Your task to perform on an android device: turn off wifi Image 0: 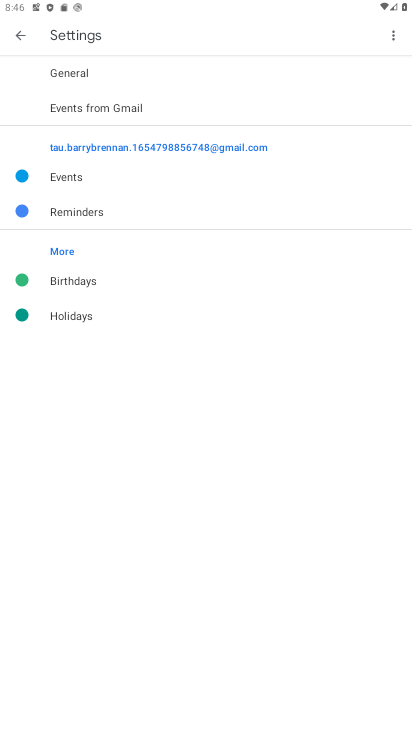
Step 0: press home button
Your task to perform on an android device: turn off wifi Image 1: 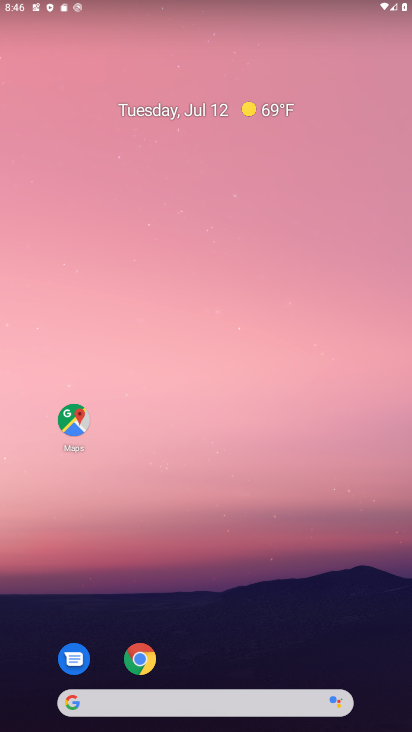
Step 1: drag from (228, 715) to (229, 208)
Your task to perform on an android device: turn off wifi Image 2: 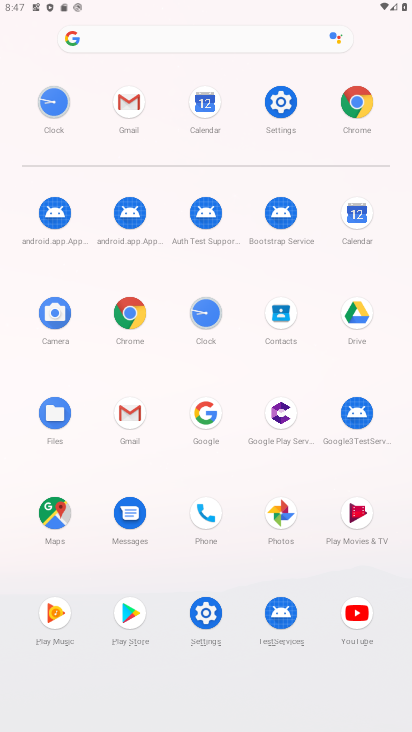
Step 2: click (284, 100)
Your task to perform on an android device: turn off wifi Image 3: 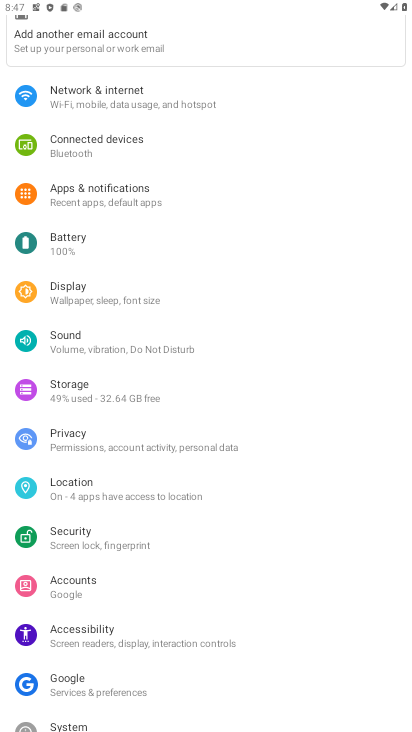
Step 3: click (125, 96)
Your task to perform on an android device: turn off wifi Image 4: 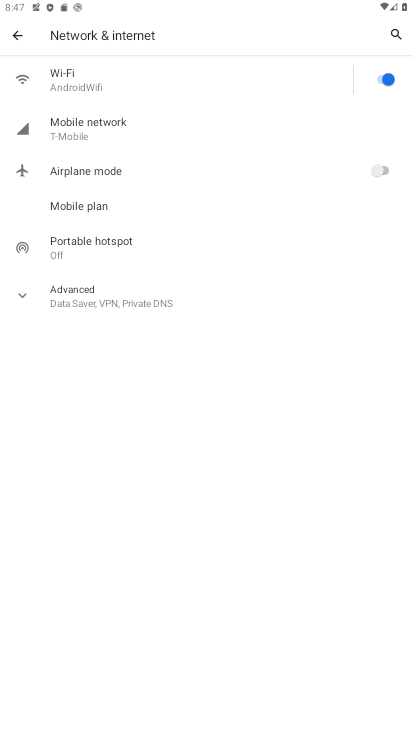
Step 4: click (381, 78)
Your task to perform on an android device: turn off wifi Image 5: 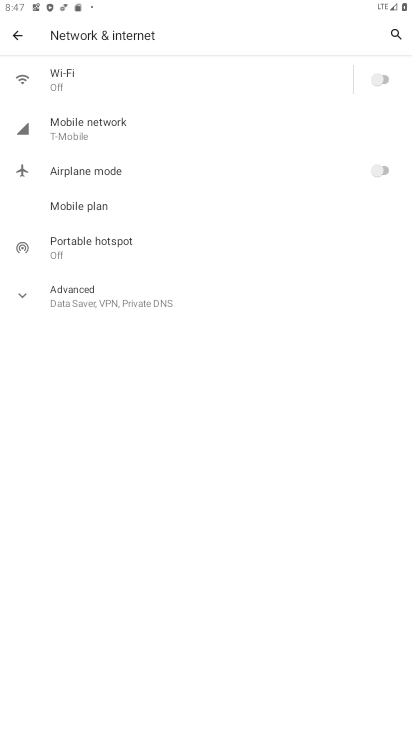
Step 5: task complete